Your task to perform on an android device: Go to network settings Image 0: 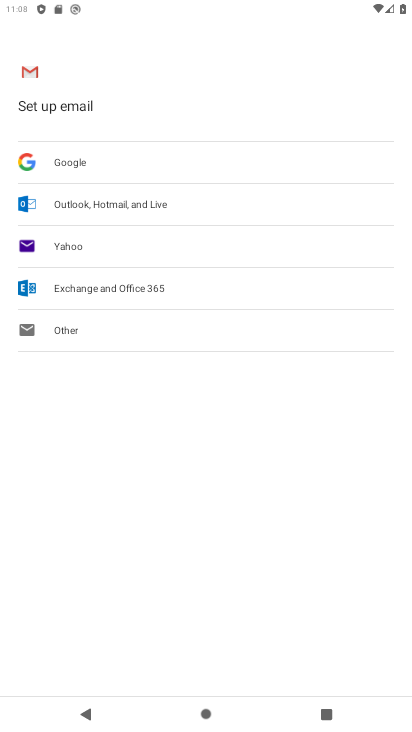
Step 0: press back button
Your task to perform on an android device: Go to network settings Image 1: 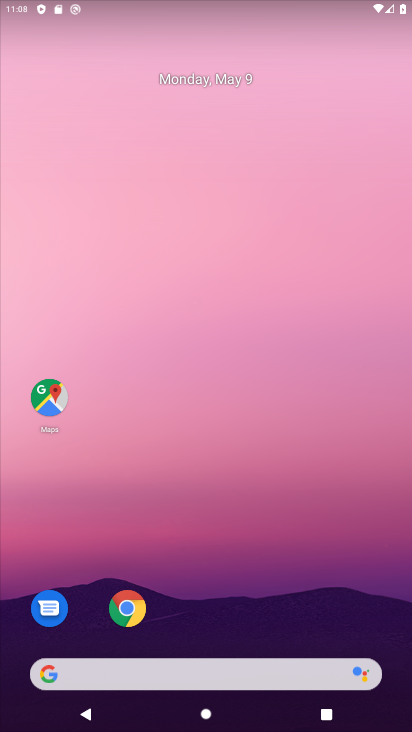
Step 1: drag from (11, 709) to (267, 184)
Your task to perform on an android device: Go to network settings Image 2: 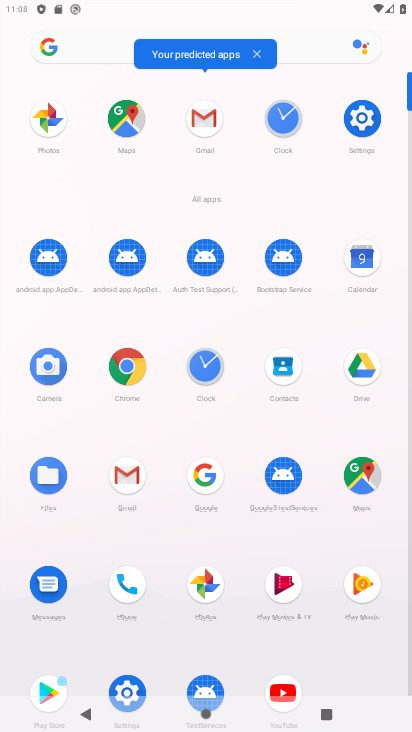
Step 2: click (349, 103)
Your task to perform on an android device: Go to network settings Image 3: 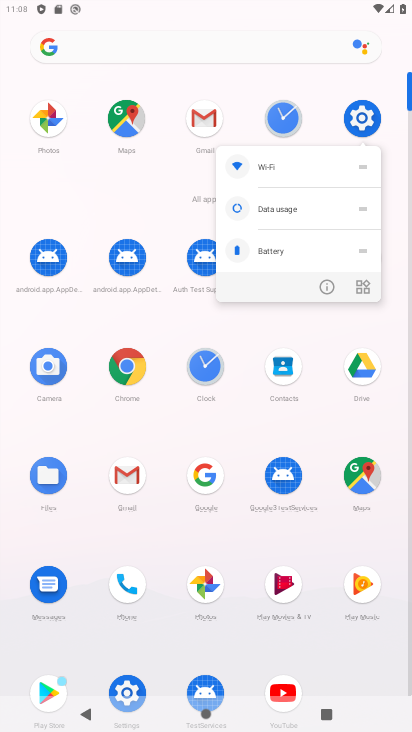
Step 3: click (369, 114)
Your task to perform on an android device: Go to network settings Image 4: 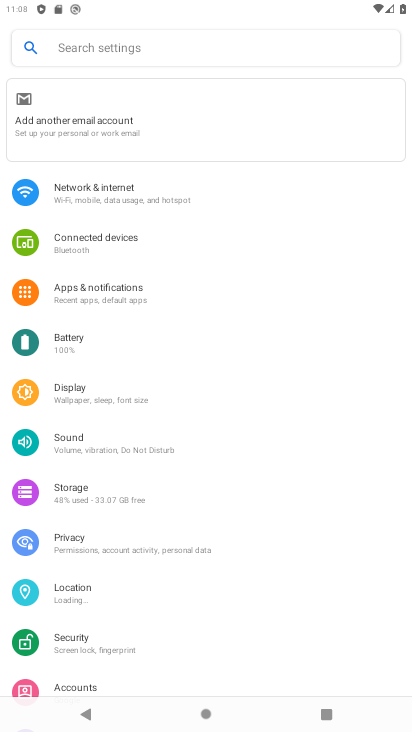
Step 4: click (126, 206)
Your task to perform on an android device: Go to network settings Image 5: 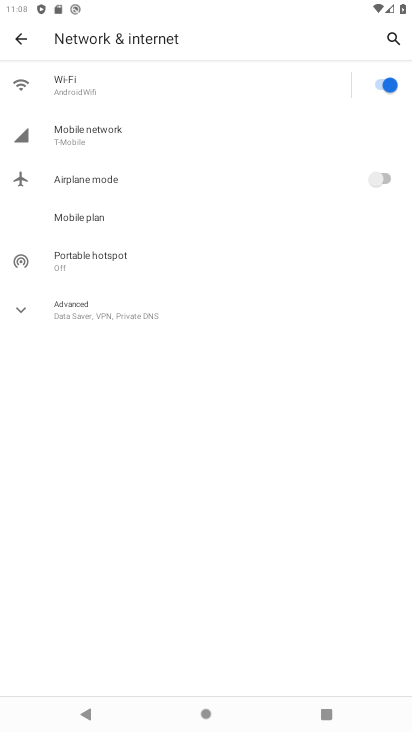
Step 5: click (73, 125)
Your task to perform on an android device: Go to network settings Image 6: 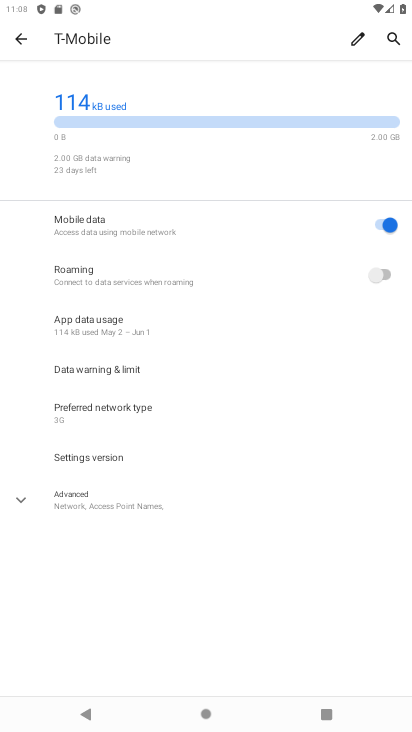
Step 6: task complete